Your task to perform on an android device: see creations saved in the google photos Image 0: 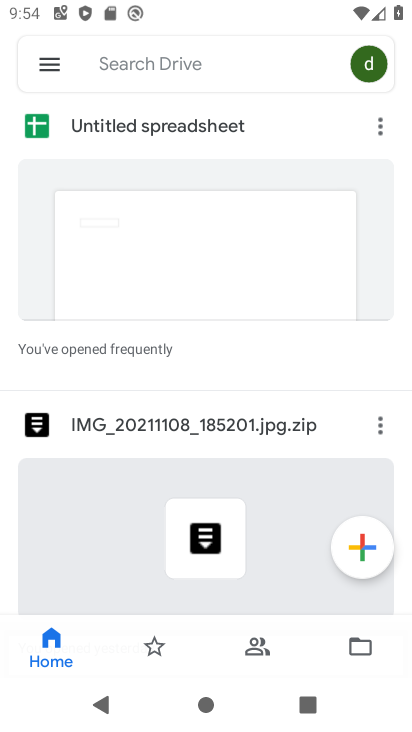
Step 0: press home button
Your task to perform on an android device: see creations saved in the google photos Image 1: 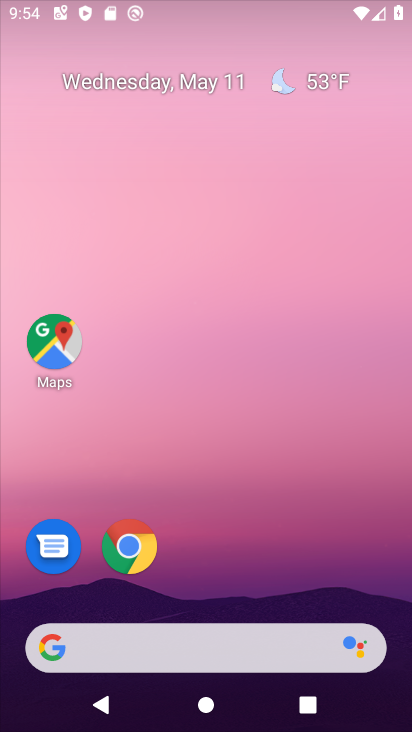
Step 1: drag from (402, 634) to (299, 50)
Your task to perform on an android device: see creations saved in the google photos Image 2: 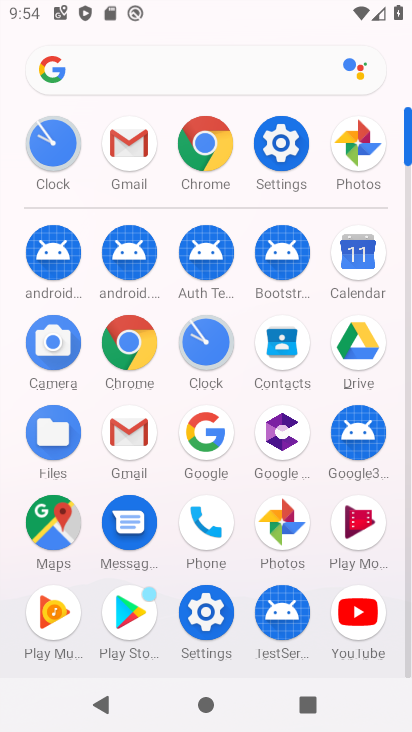
Step 2: click (283, 524)
Your task to perform on an android device: see creations saved in the google photos Image 3: 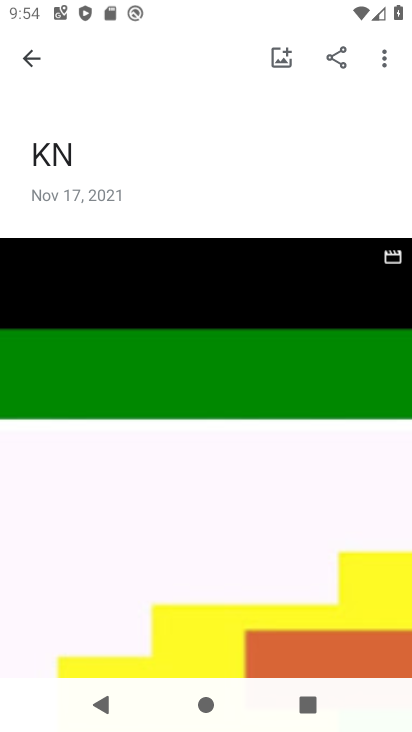
Step 3: click (31, 52)
Your task to perform on an android device: see creations saved in the google photos Image 4: 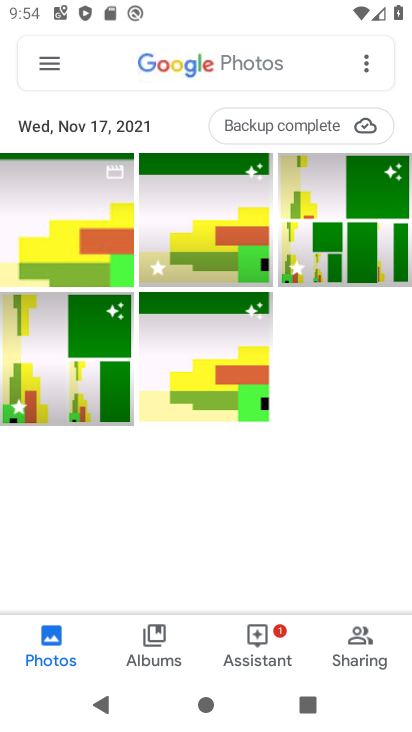
Step 4: click (201, 46)
Your task to perform on an android device: see creations saved in the google photos Image 5: 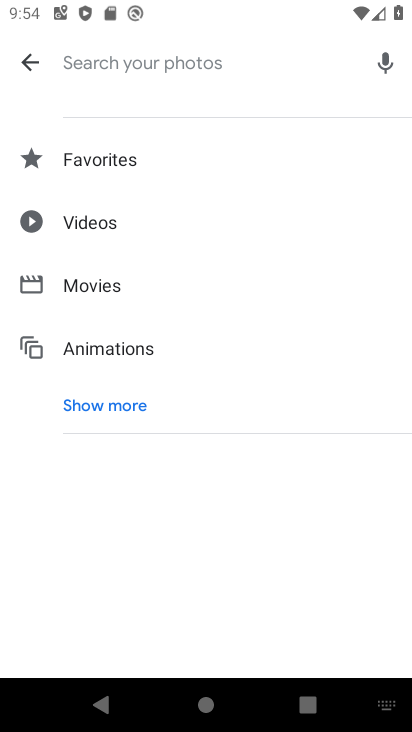
Step 5: click (79, 408)
Your task to perform on an android device: see creations saved in the google photos Image 6: 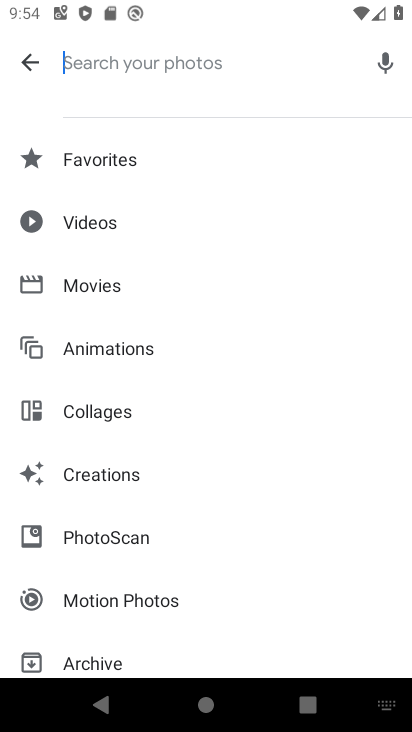
Step 6: click (129, 476)
Your task to perform on an android device: see creations saved in the google photos Image 7: 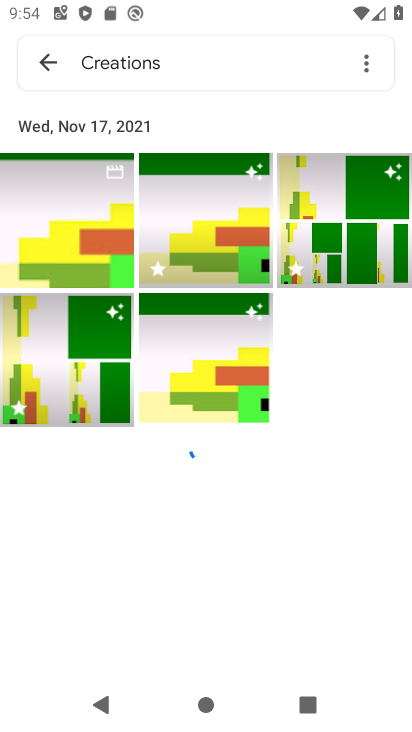
Step 7: task complete